Your task to perform on an android device: turn off location Image 0: 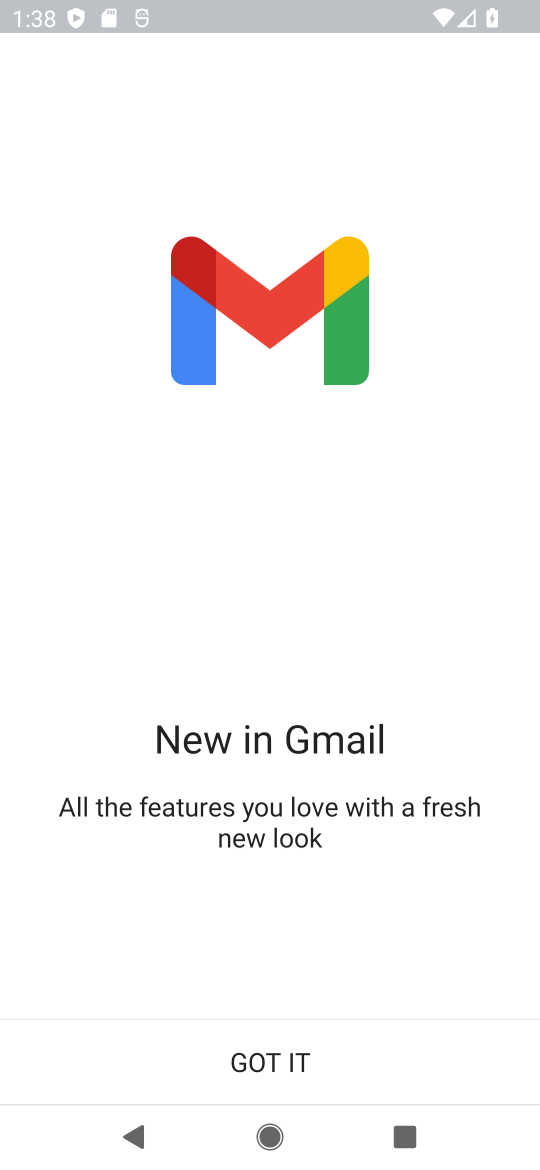
Step 0: press home button
Your task to perform on an android device: turn off location Image 1: 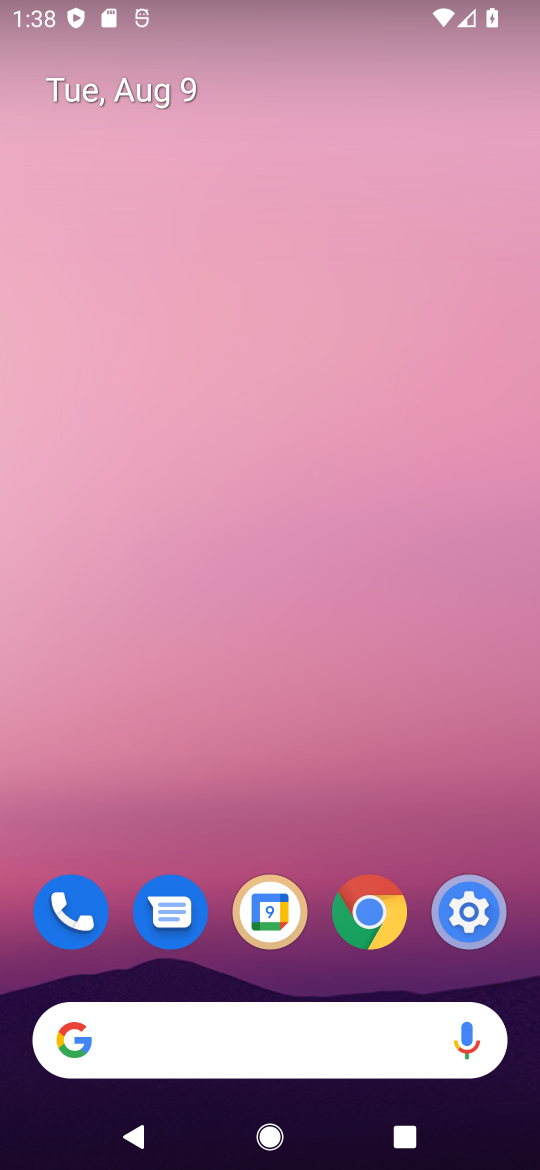
Step 1: click (481, 912)
Your task to perform on an android device: turn off location Image 2: 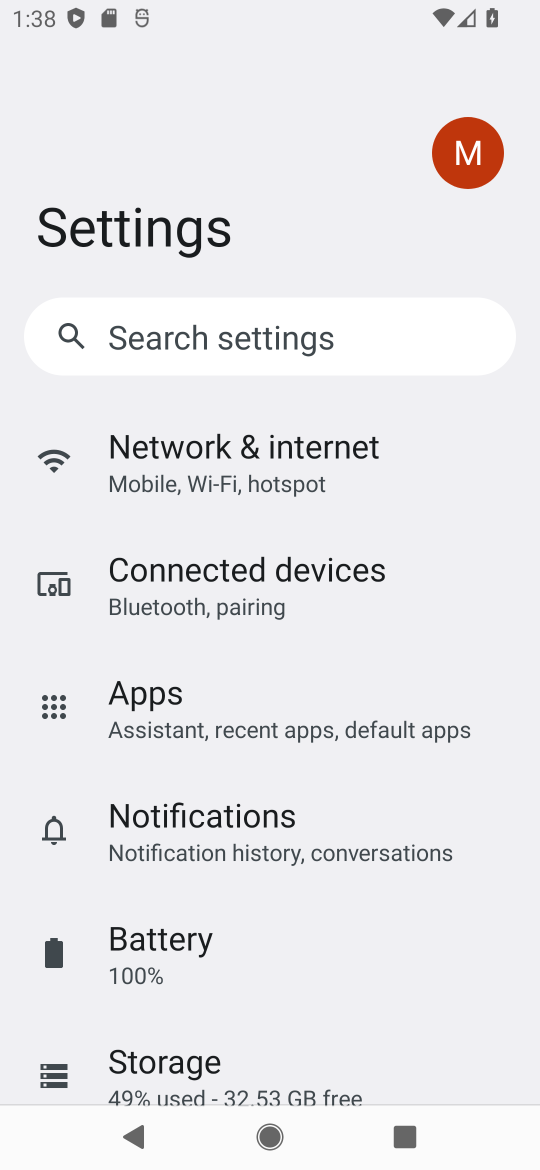
Step 2: drag from (271, 910) to (223, 434)
Your task to perform on an android device: turn off location Image 3: 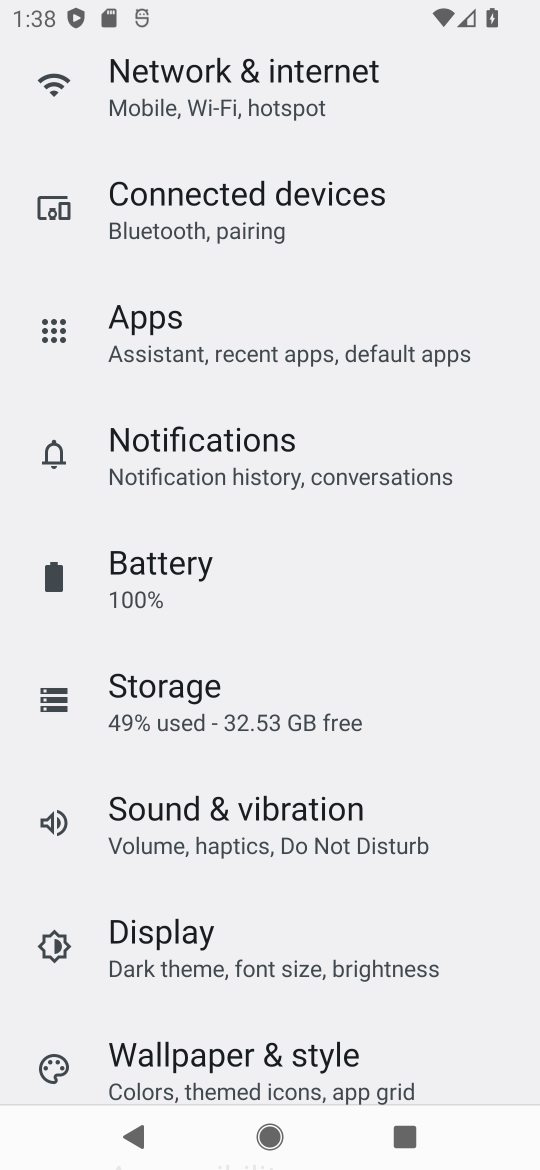
Step 3: drag from (280, 897) to (250, 369)
Your task to perform on an android device: turn off location Image 4: 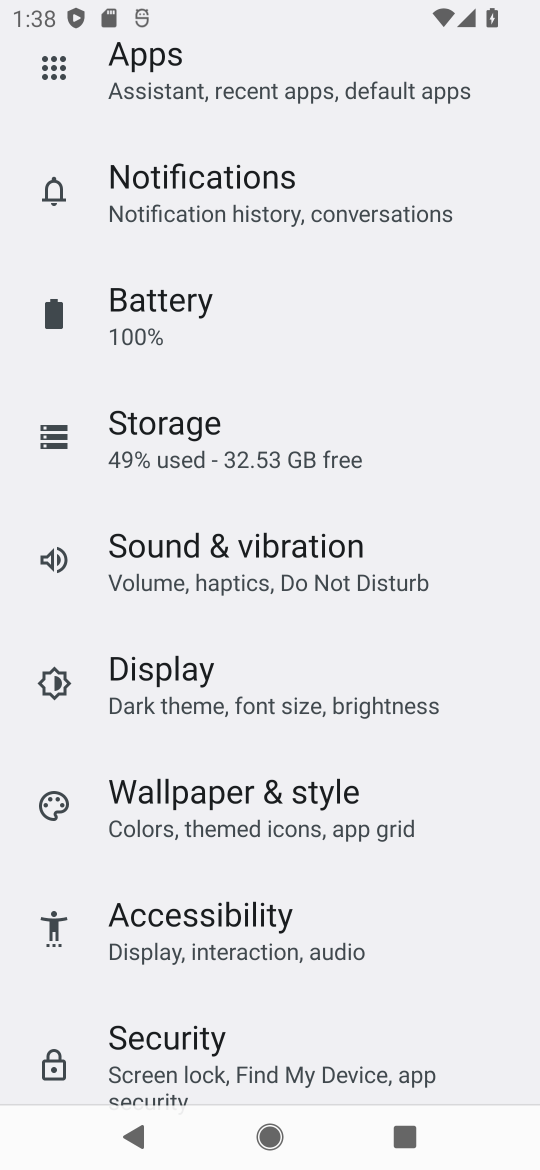
Step 4: drag from (335, 1013) to (327, 495)
Your task to perform on an android device: turn off location Image 5: 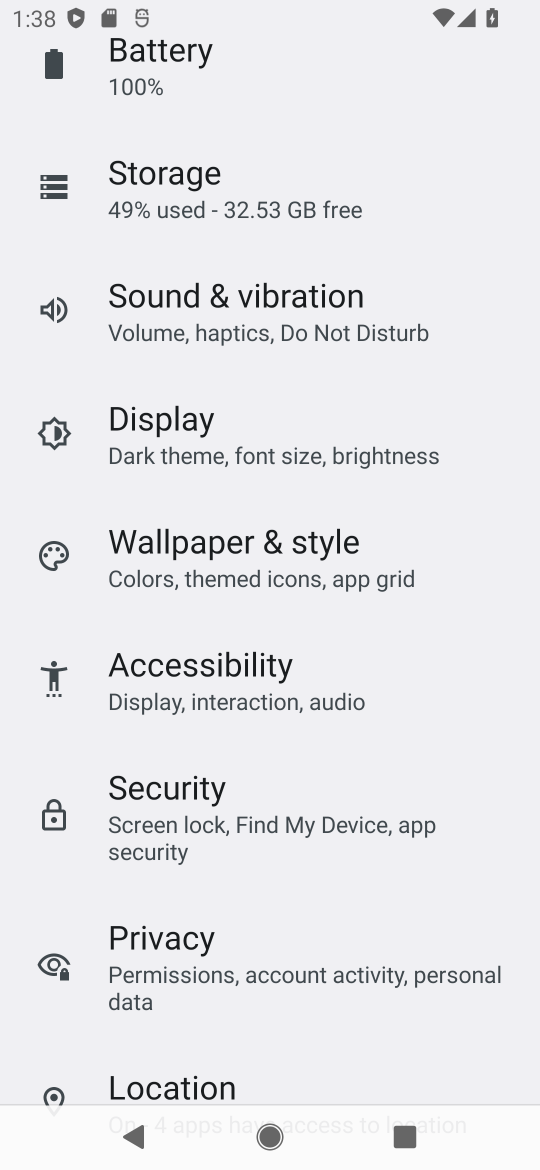
Step 5: drag from (305, 874) to (288, 335)
Your task to perform on an android device: turn off location Image 6: 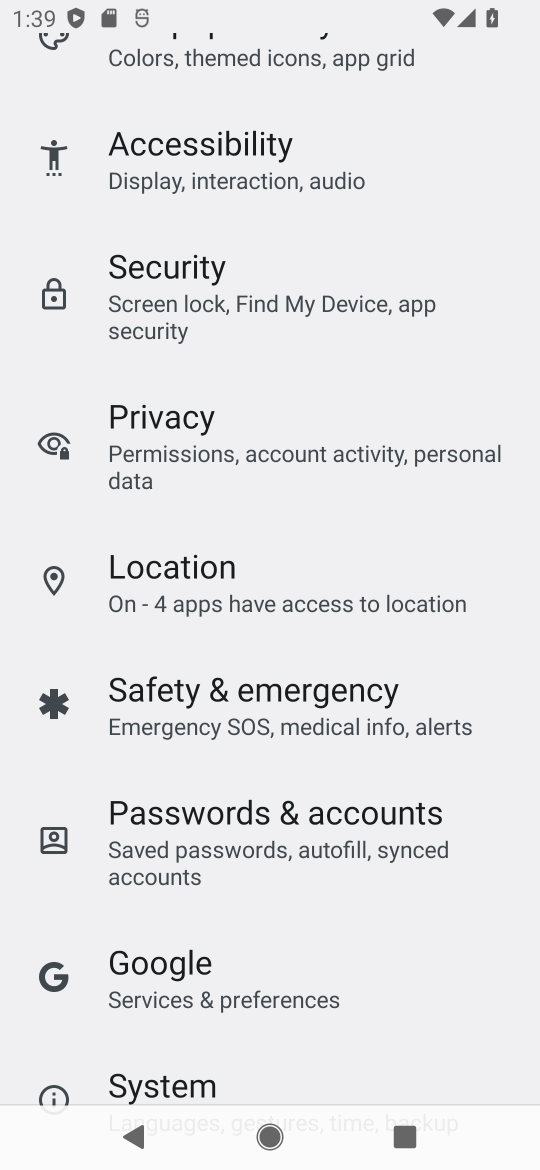
Step 6: click (185, 554)
Your task to perform on an android device: turn off location Image 7: 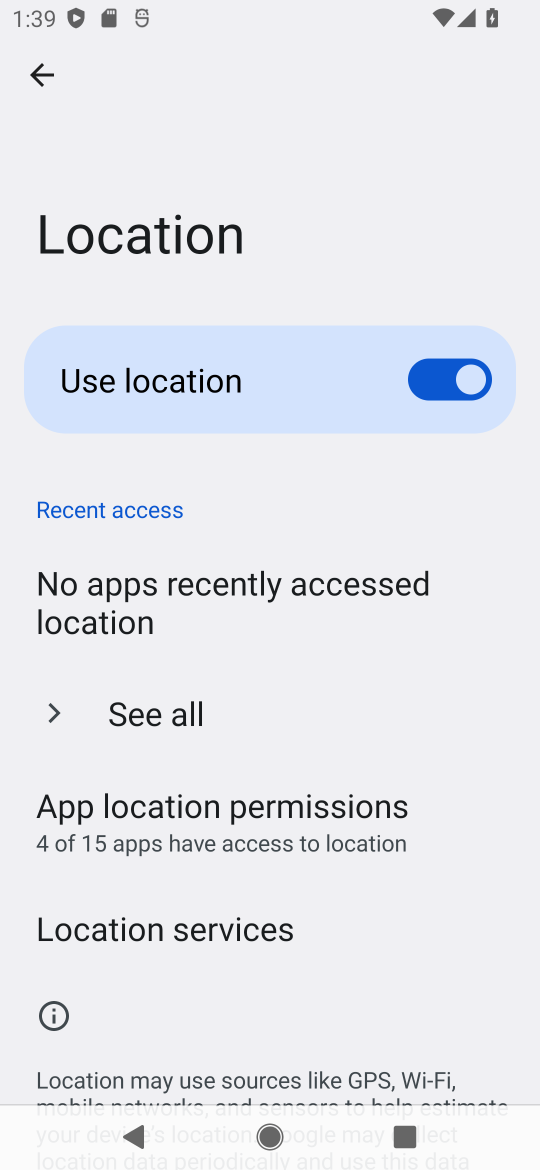
Step 7: click (452, 387)
Your task to perform on an android device: turn off location Image 8: 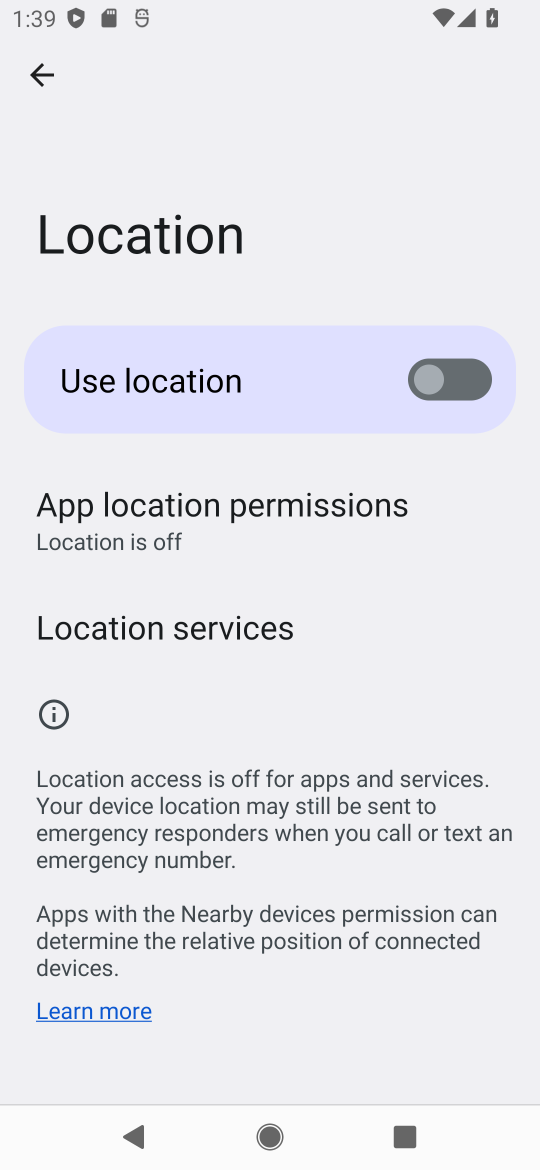
Step 8: task complete